Your task to perform on an android device: set the timer Image 0: 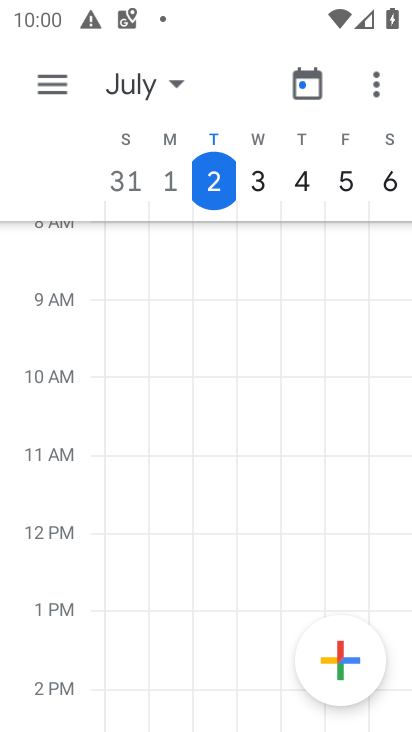
Step 0: press home button
Your task to perform on an android device: set the timer Image 1: 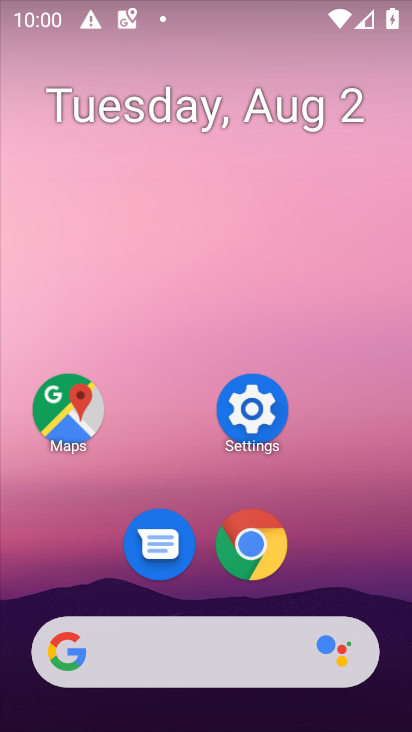
Step 1: click (254, 412)
Your task to perform on an android device: set the timer Image 2: 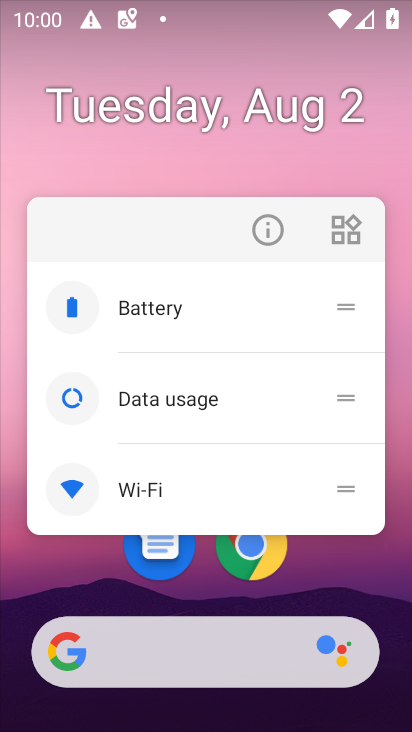
Step 2: click (366, 567)
Your task to perform on an android device: set the timer Image 3: 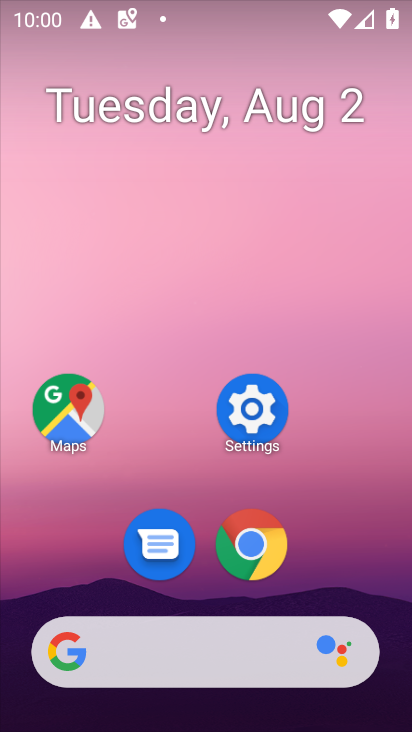
Step 3: click (257, 402)
Your task to perform on an android device: set the timer Image 4: 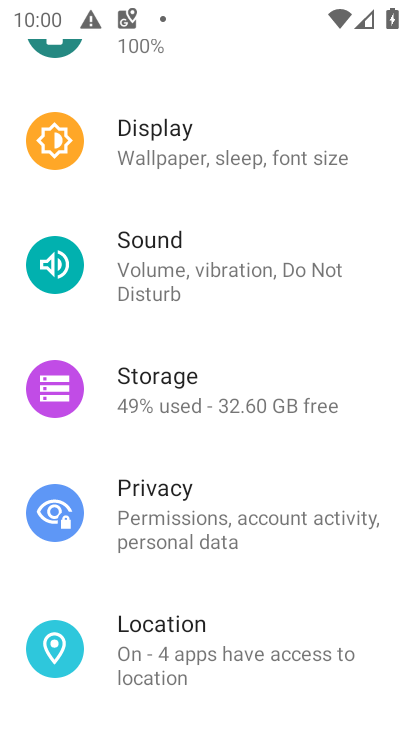
Step 4: drag from (238, 606) to (265, 218)
Your task to perform on an android device: set the timer Image 5: 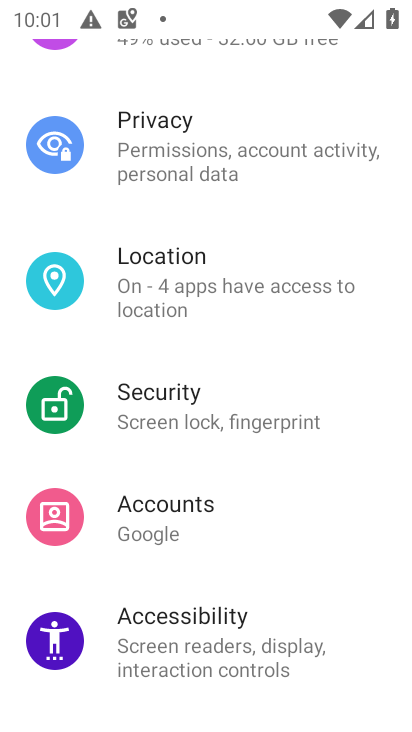
Step 5: press home button
Your task to perform on an android device: set the timer Image 6: 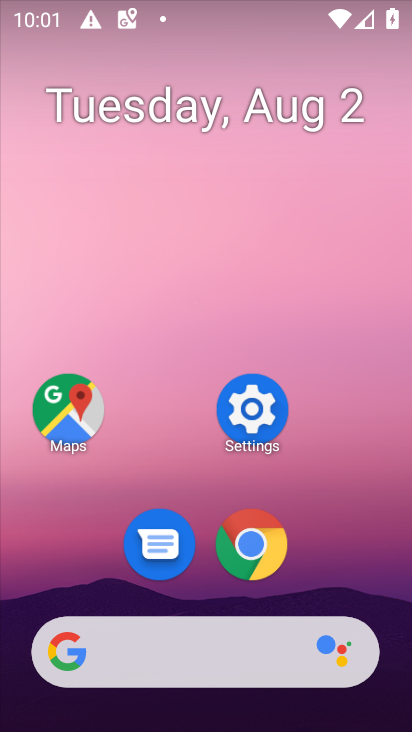
Step 6: drag from (249, 646) to (303, 51)
Your task to perform on an android device: set the timer Image 7: 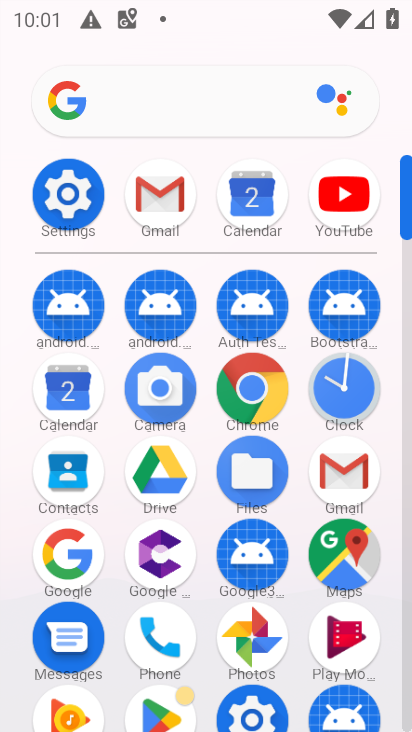
Step 7: click (344, 390)
Your task to perform on an android device: set the timer Image 8: 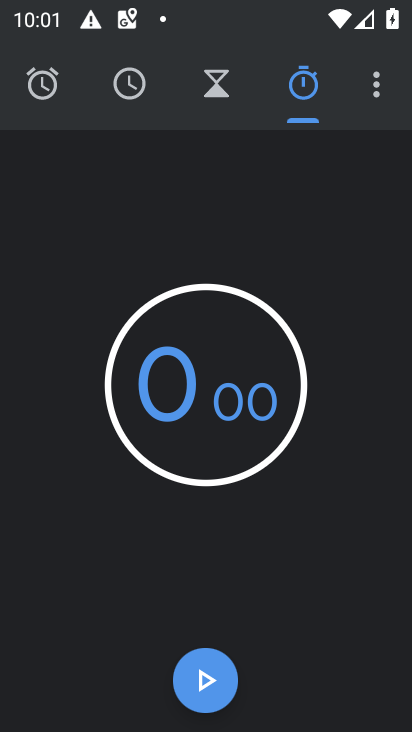
Step 8: click (221, 99)
Your task to perform on an android device: set the timer Image 9: 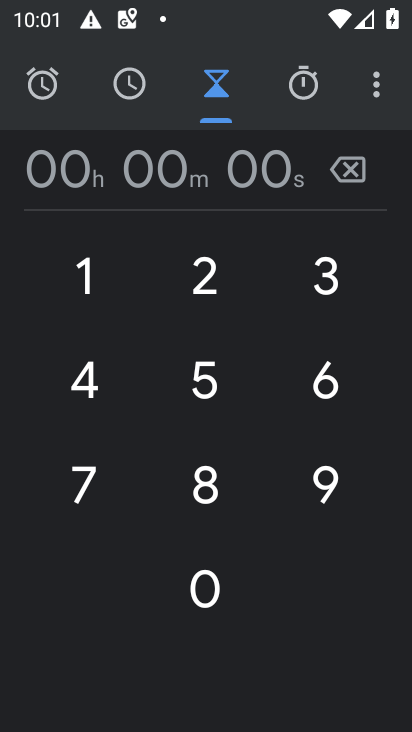
Step 9: click (204, 273)
Your task to perform on an android device: set the timer Image 10: 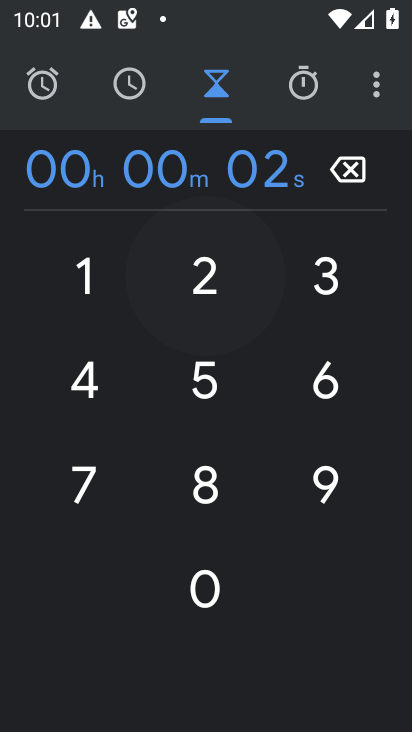
Step 10: click (210, 387)
Your task to perform on an android device: set the timer Image 11: 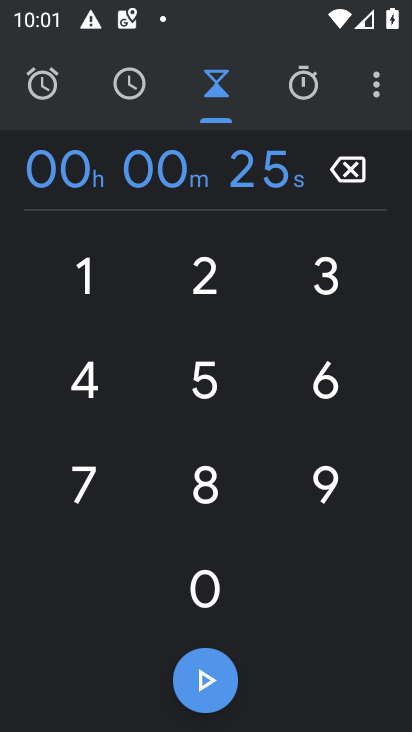
Step 11: task complete